Your task to perform on an android device: turn off data saver in the chrome app Image 0: 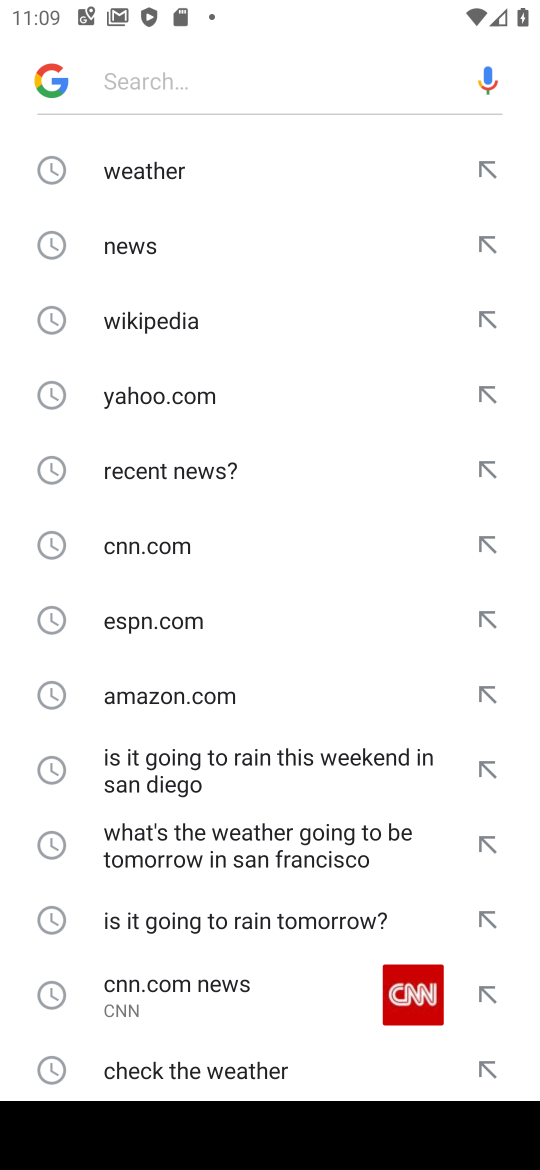
Step 0: press home button
Your task to perform on an android device: turn off data saver in the chrome app Image 1: 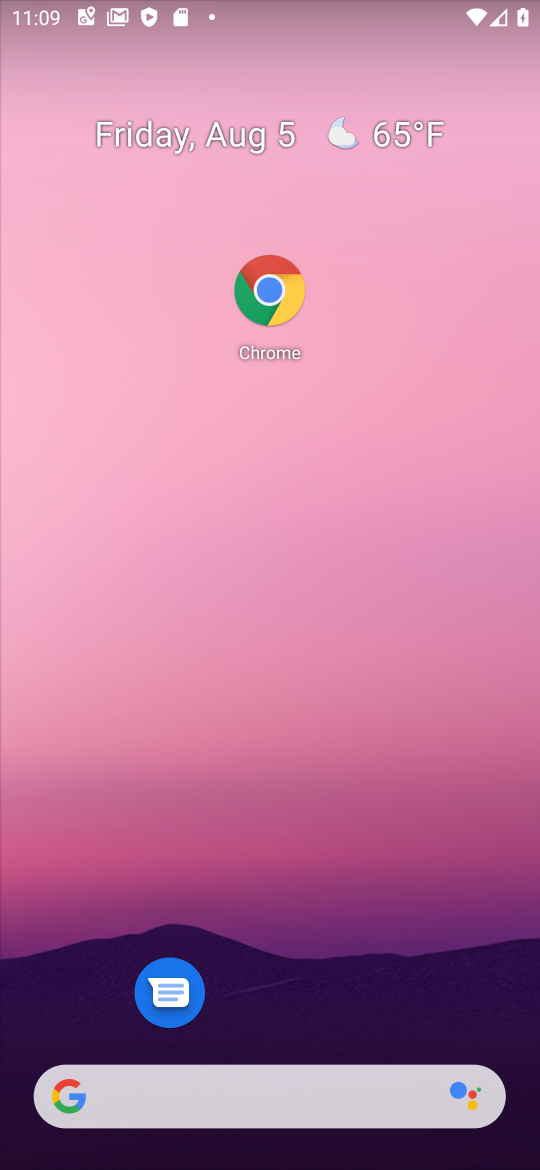
Step 1: drag from (327, 706) to (347, 46)
Your task to perform on an android device: turn off data saver in the chrome app Image 2: 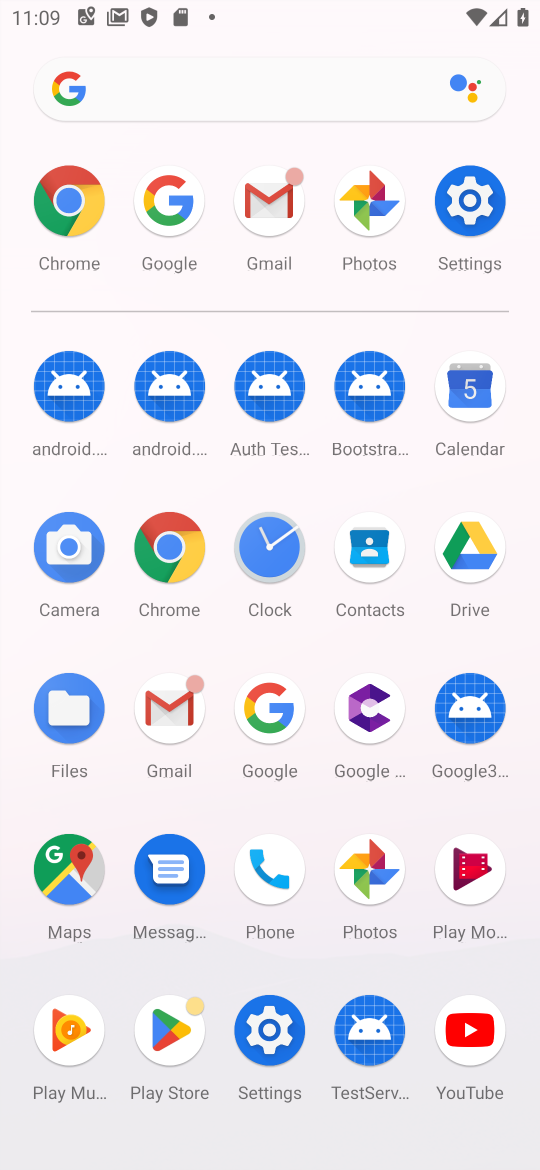
Step 2: click (83, 198)
Your task to perform on an android device: turn off data saver in the chrome app Image 3: 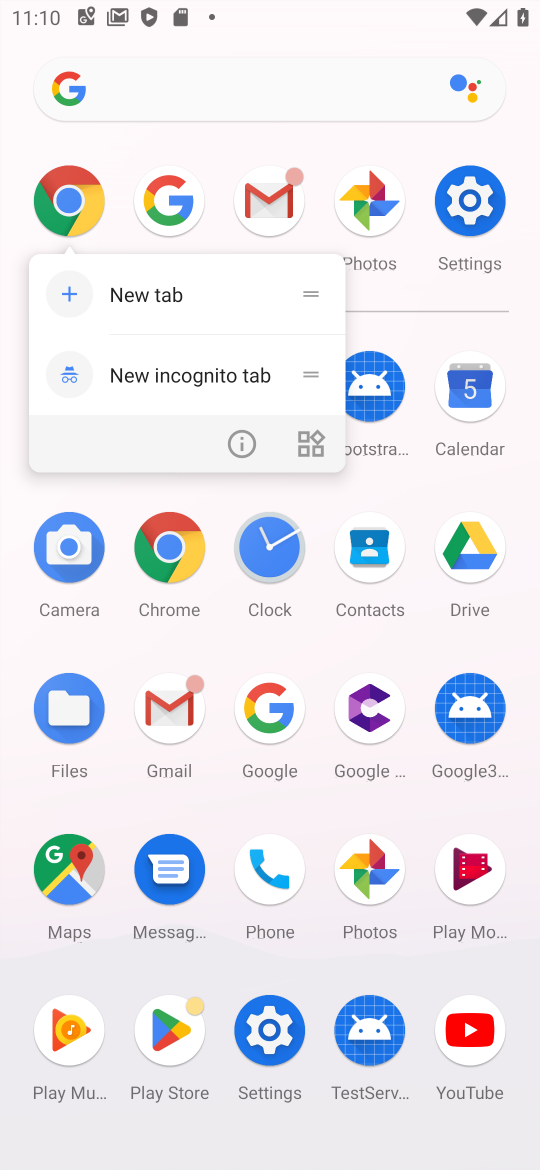
Step 3: click (70, 189)
Your task to perform on an android device: turn off data saver in the chrome app Image 4: 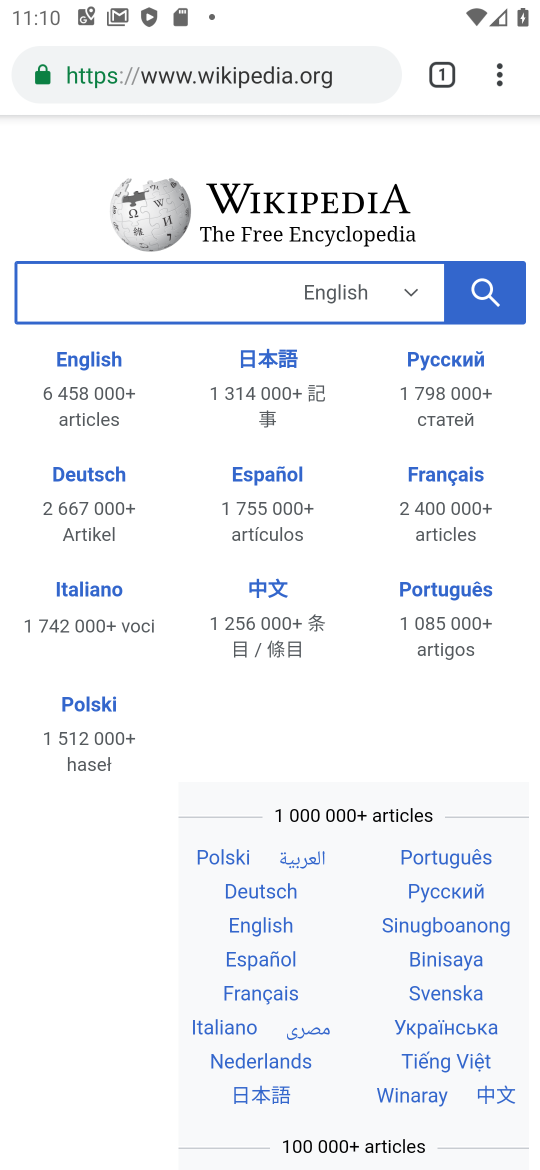
Step 4: drag from (492, 70) to (209, 916)
Your task to perform on an android device: turn off data saver in the chrome app Image 5: 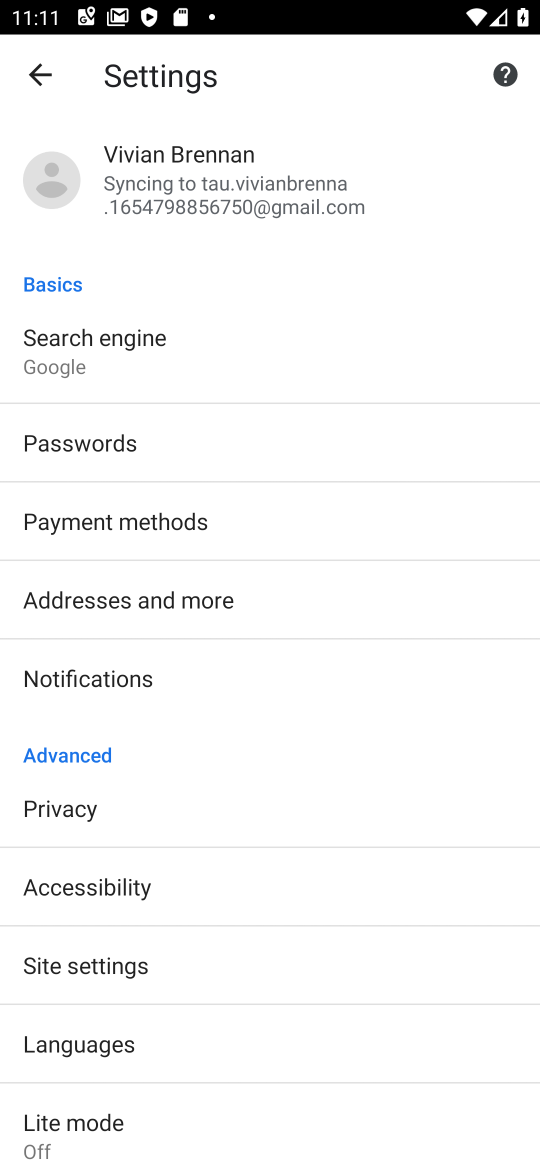
Step 5: drag from (216, 1008) to (335, 539)
Your task to perform on an android device: turn off data saver in the chrome app Image 6: 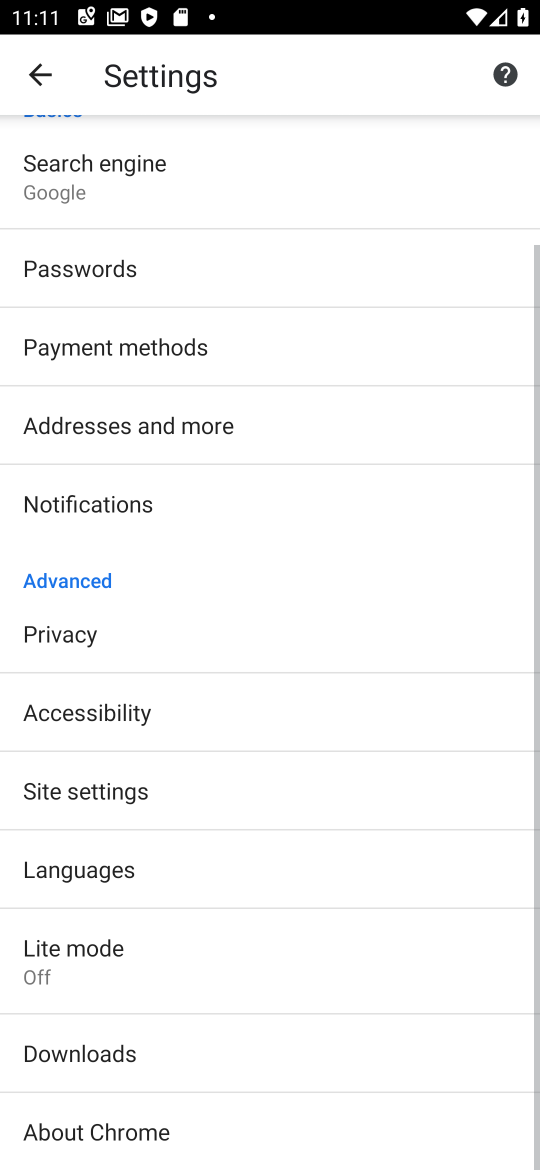
Step 6: click (94, 951)
Your task to perform on an android device: turn off data saver in the chrome app Image 7: 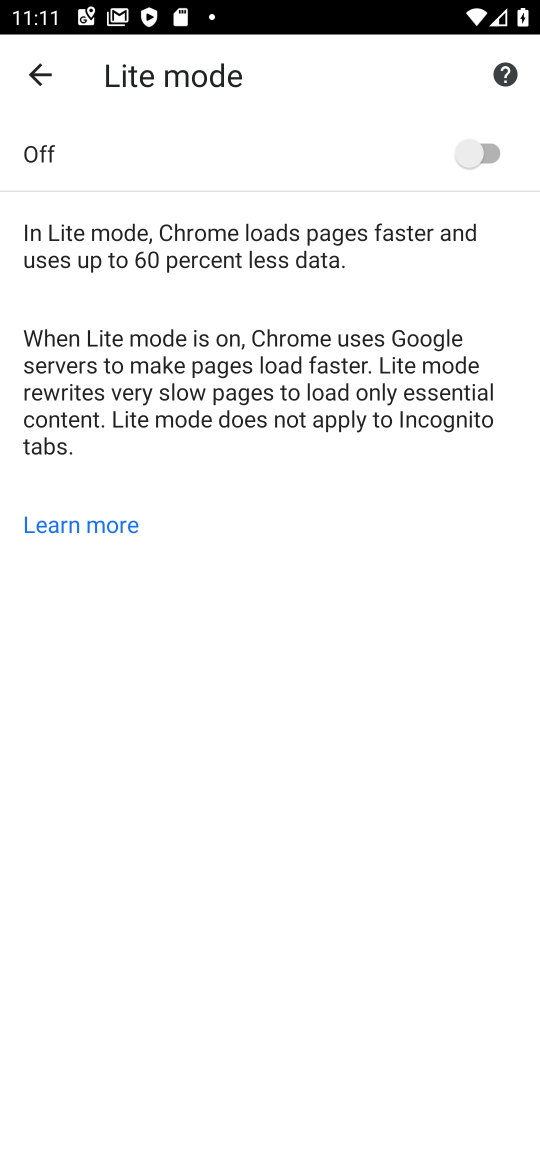
Step 7: task complete